Your task to perform on an android device: turn on priority inbox in the gmail app Image 0: 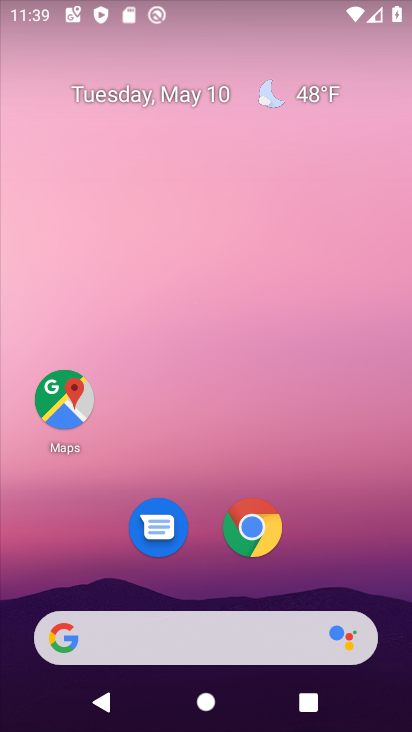
Step 0: drag from (231, 725) to (221, 263)
Your task to perform on an android device: turn on priority inbox in the gmail app Image 1: 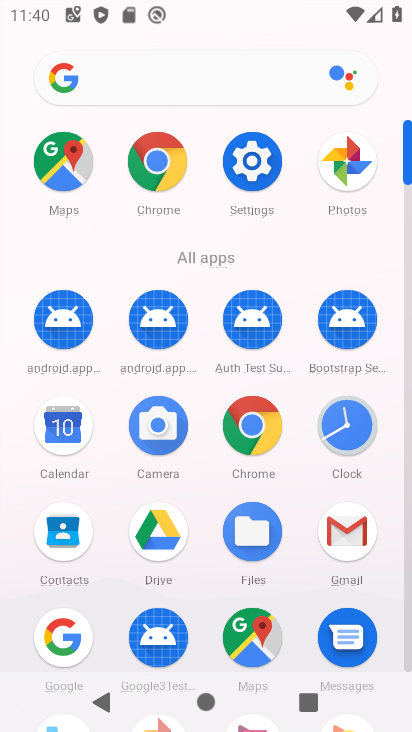
Step 1: click (345, 522)
Your task to perform on an android device: turn on priority inbox in the gmail app Image 2: 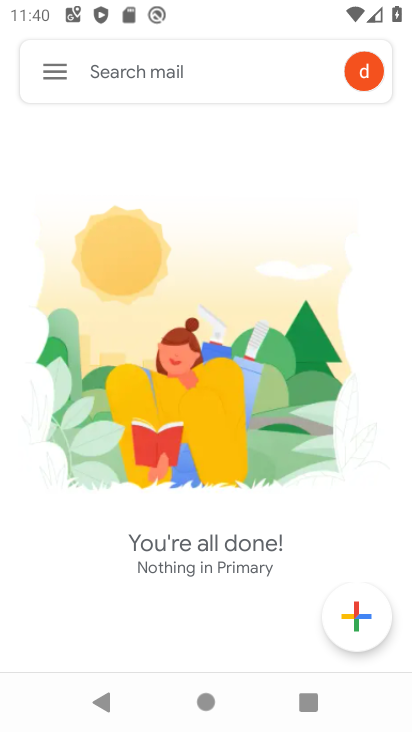
Step 2: click (49, 74)
Your task to perform on an android device: turn on priority inbox in the gmail app Image 3: 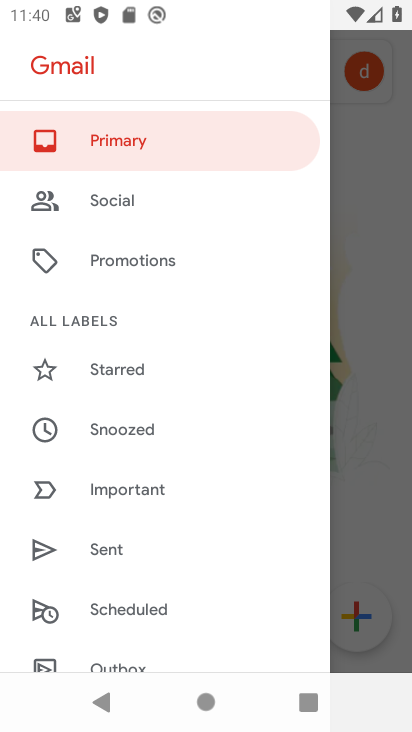
Step 3: drag from (148, 633) to (148, 329)
Your task to perform on an android device: turn on priority inbox in the gmail app Image 4: 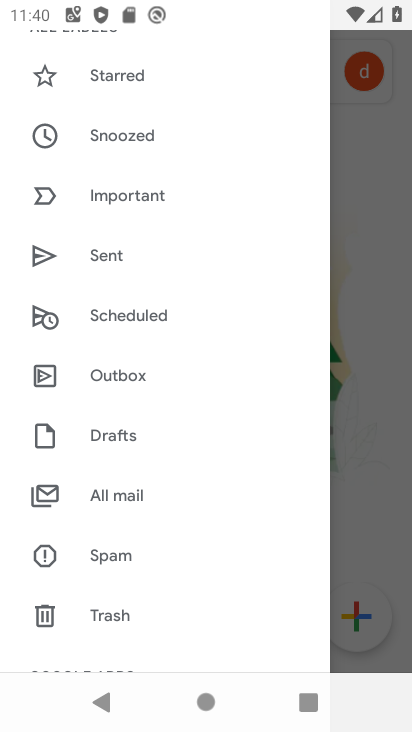
Step 4: drag from (154, 622) to (153, 312)
Your task to perform on an android device: turn on priority inbox in the gmail app Image 5: 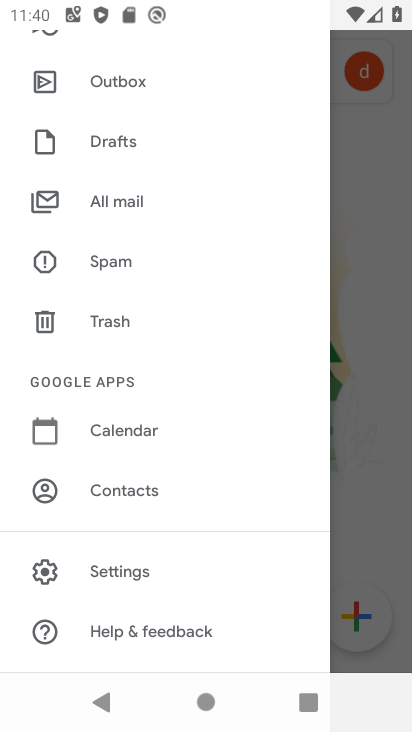
Step 5: click (123, 565)
Your task to perform on an android device: turn on priority inbox in the gmail app Image 6: 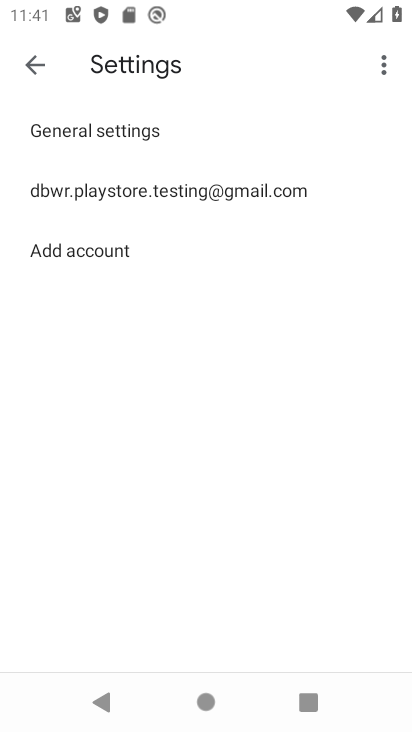
Step 6: click (120, 189)
Your task to perform on an android device: turn on priority inbox in the gmail app Image 7: 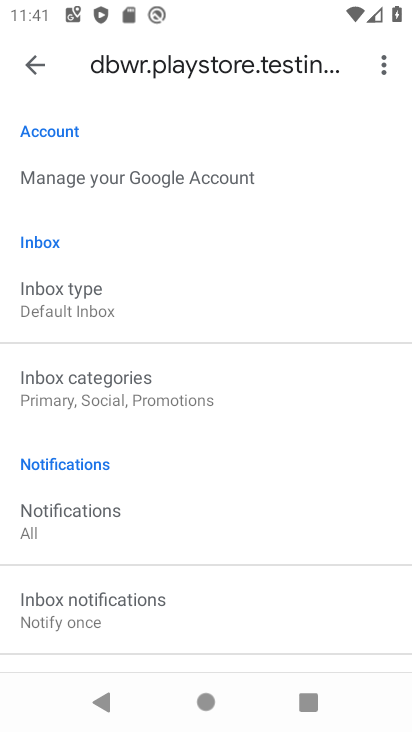
Step 7: click (73, 303)
Your task to perform on an android device: turn on priority inbox in the gmail app Image 8: 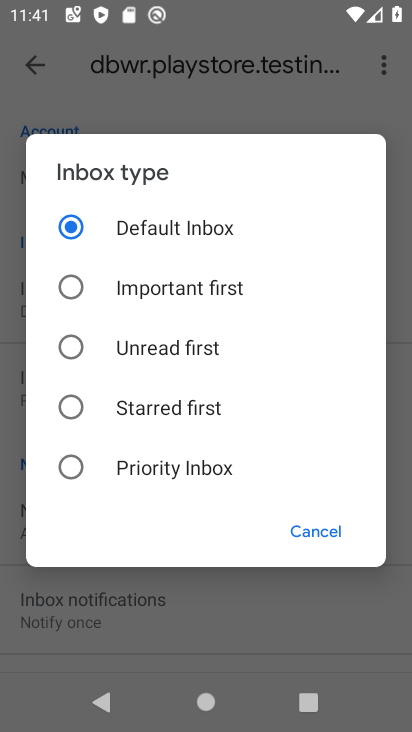
Step 8: click (67, 462)
Your task to perform on an android device: turn on priority inbox in the gmail app Image 9: 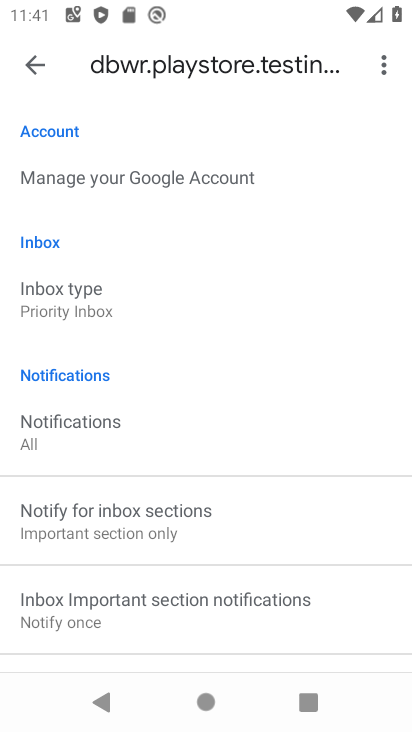
Step 9: task complete